Your task to perform on an android device: turn on javascript in the chrome app Image 0: 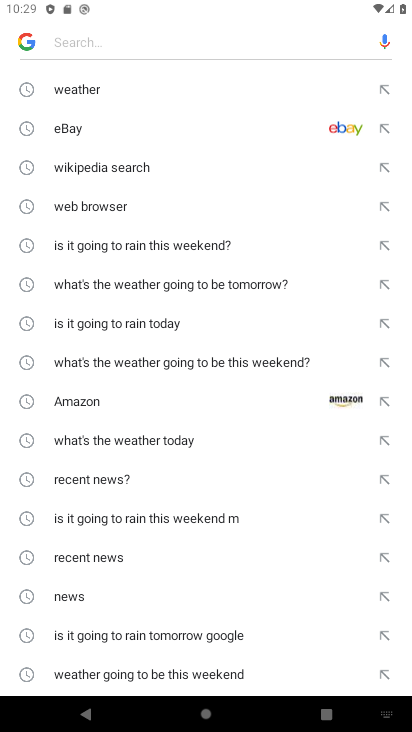
Step 0: press home button
Your task to perform on an android device: turn on javascript in the chrome app Image 1: 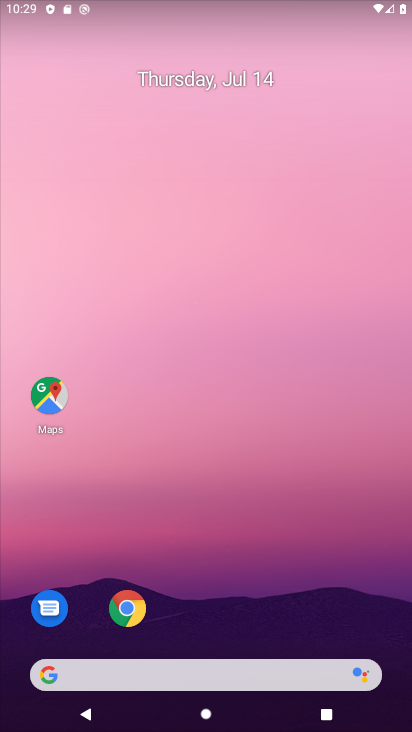
Step 1: click (124, 601)
Your task to perform on an android device: turn on javascript in the chrome app Image 2: 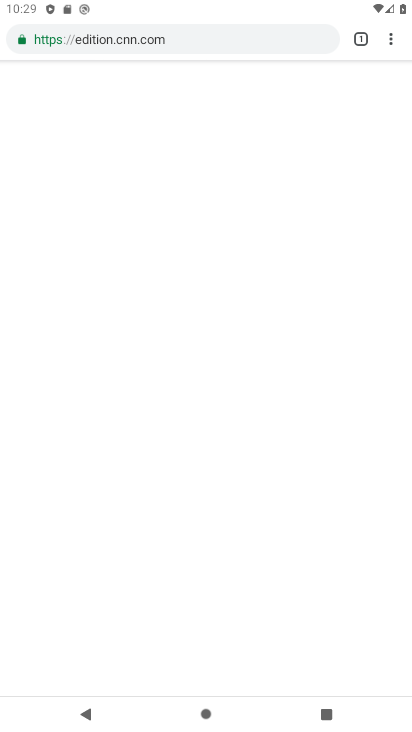
Step 2: click (389, 42)
Your task to perform on an android device: turn on javascript in the chrome app Image 3: 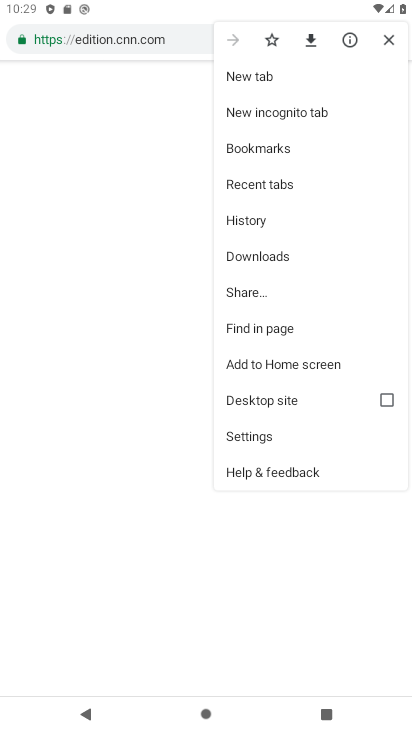
Step 3: click (260, 430)
Your task to perform on an android device: turn on javascript in the chrome app Image 4: 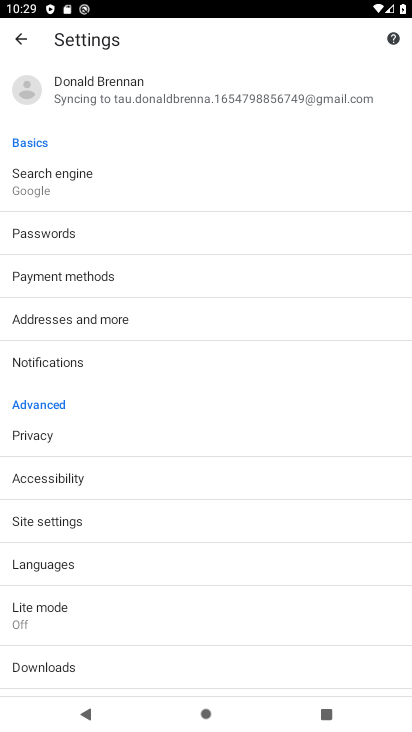
Step 4: click (56, 518)
Your task to perform on an android device: turn on javascript in the chrome app Image 5: 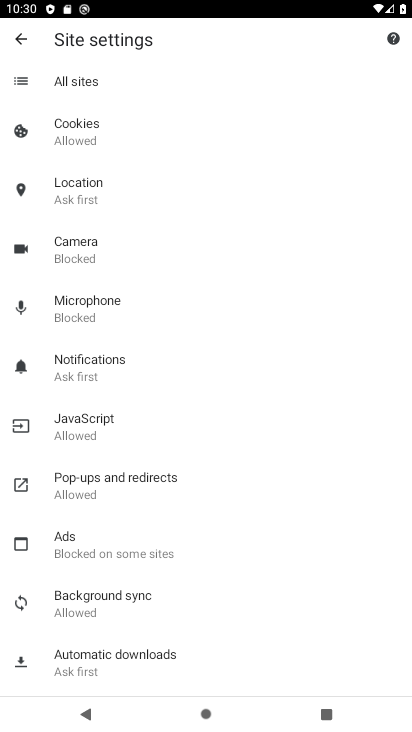
Step 5: click (113, 429)
Your task to perform on an android device: turn on javascript in the chrome app Image 6: 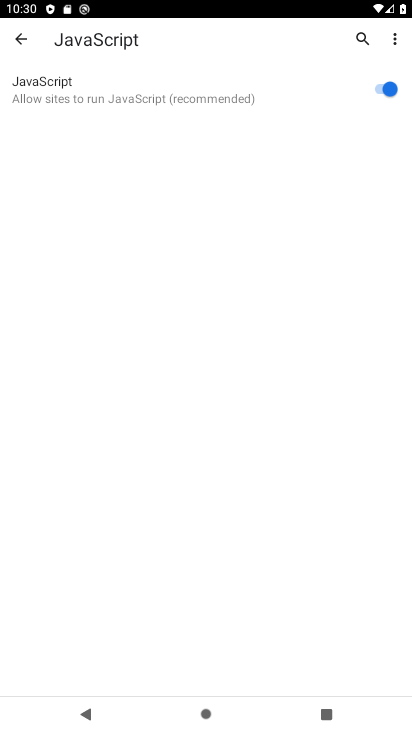
Step 6: task complete